Your task to perform on an android device: allow cookies in the chrome app Image 0: 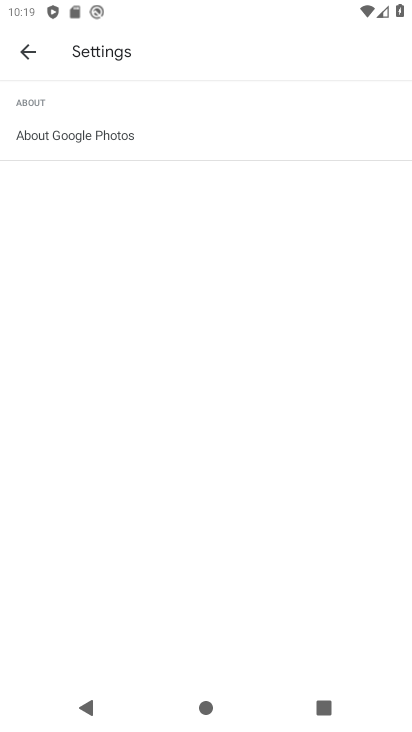
Step 0: press home button
Your task to perform on an android device: allow cookies in the chrome app Image 1: 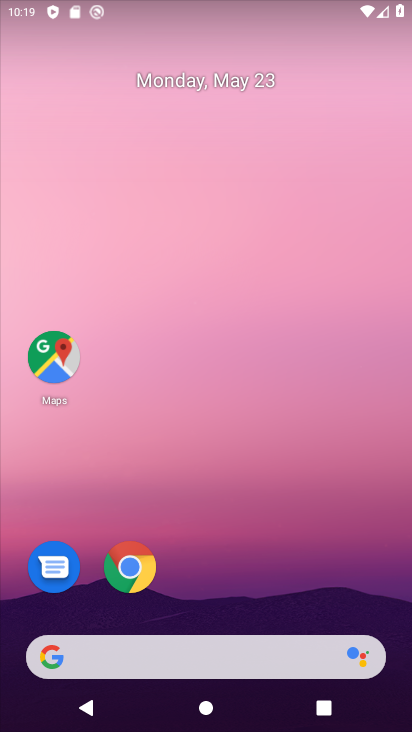
Step 1: click (136, 583)
Your task to perform on an android device: allow cookies in the chrome app Image 2: 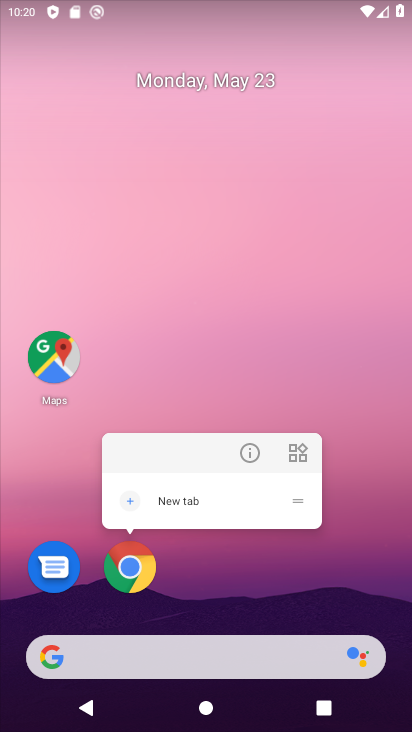
Step 2: click (133, 571)
Your task to perform on an android device: allow cookies in the chrome app Image 3: 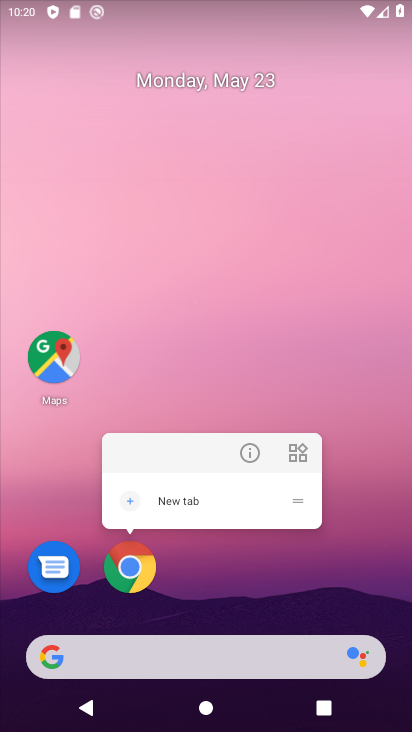
Step 3: click (132, 571)
Your task to perform on an android device: allow cookies in the chrome app Image 4: 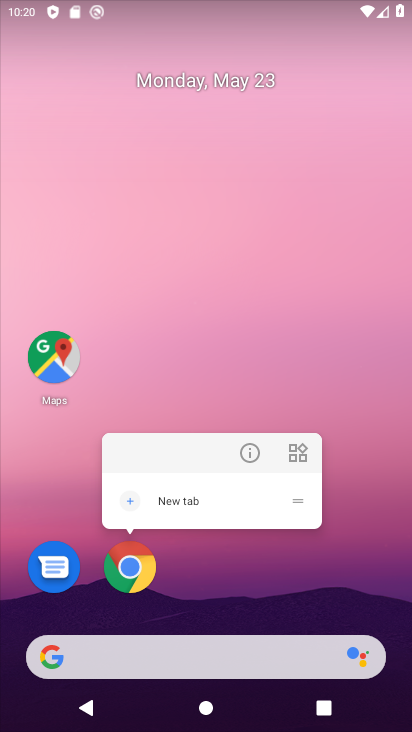
Step 4: click (137, 579)
Your task to perform on an android device: allow cookies in the chrome app Image 5: 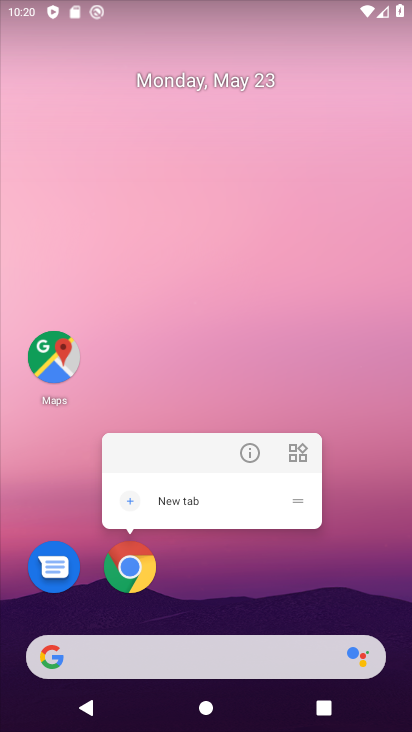
Step 5: click (135, 581)
Your task to perform on an android device: allow cookies in the chrome app Image 6: 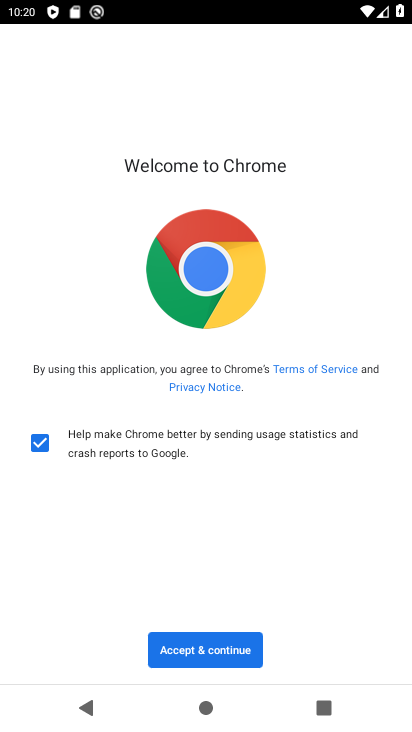
Step 6: click (229, 655)
Your task to perform on an android device: allow cookies in the chrome app Image 7: 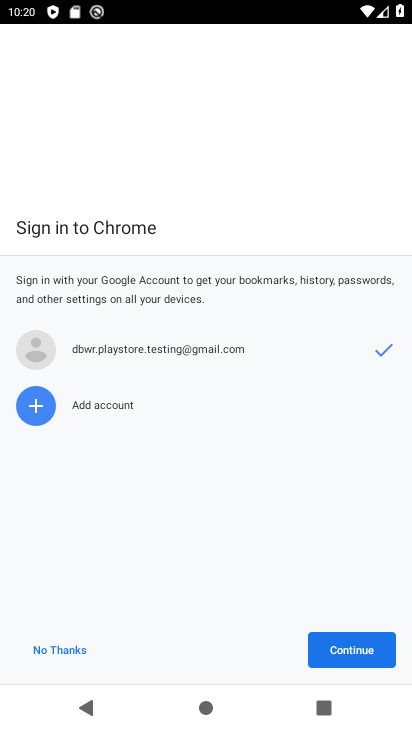
Step 7: click (340, 660)
Your task to perform on an android device: allow cookies in the chrome app Image 8: 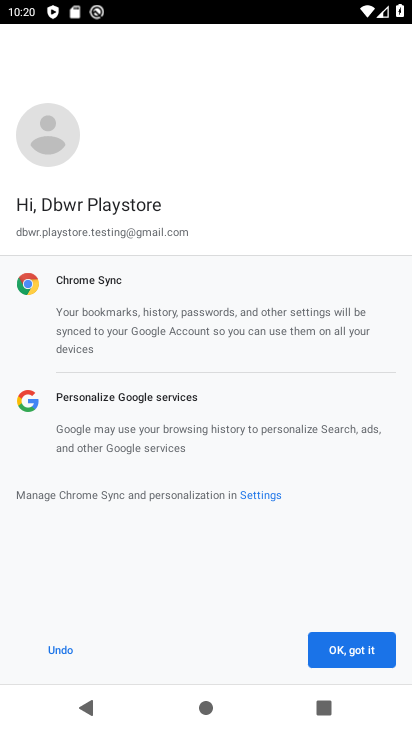
Step 8: click (341, 661)
Your task to perform on an android device: allow cookies in the chrome app Image 9: 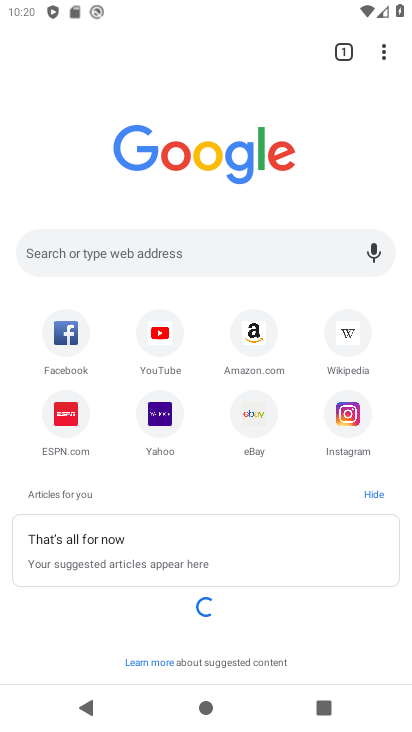
Step 9: drag from (393, 61) to (238, 439)
Your task to perform on an android device: allow cookies in the chrome app Image 10: 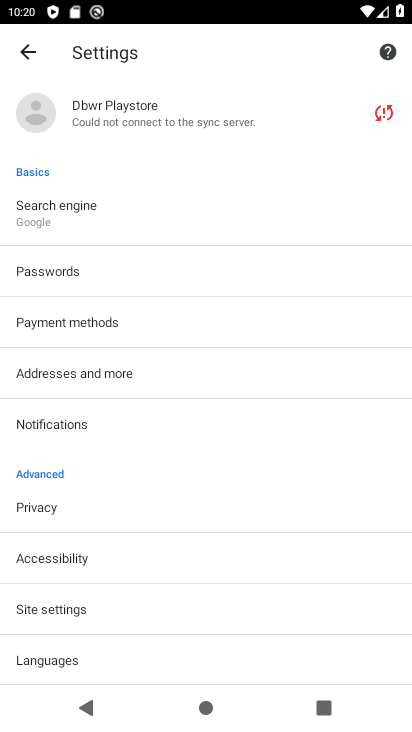
Step 10: drag from (127, 607) to (161, 407)
Your task to perform on an android device: allow cookies in the chrome app Image 11: 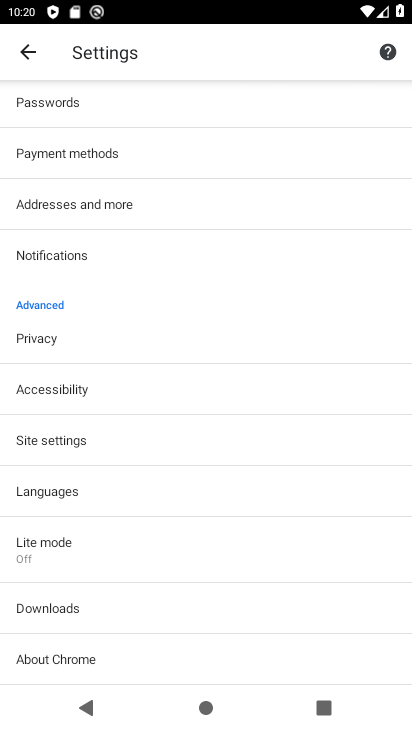
Step 11: click (97, 442)
Your task to perform on an android device: allow cookies in the chrome app Image 12: 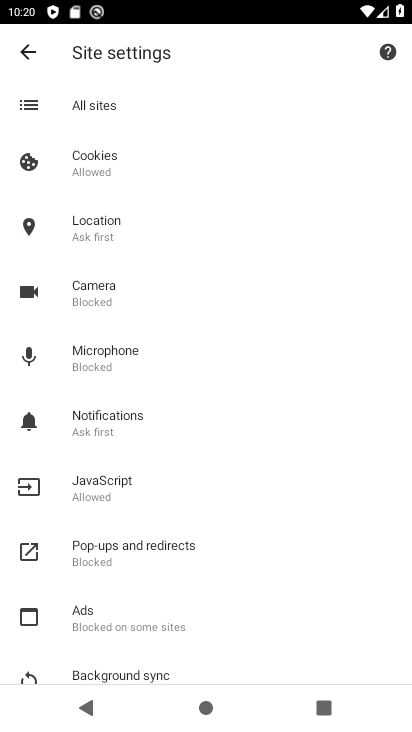
Step 12: click (146, 172)
Your task to perform on an android device: allow cookies in the chrome app Image 13: 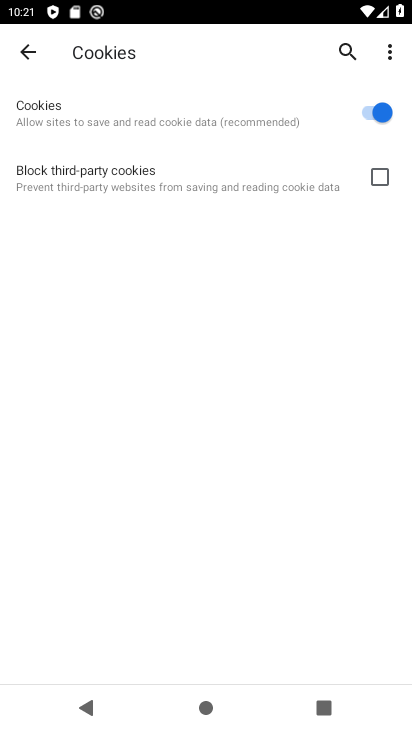
Step 13: task complete